Your task to perform on an android device: change the clock display to show seconds Image 0: 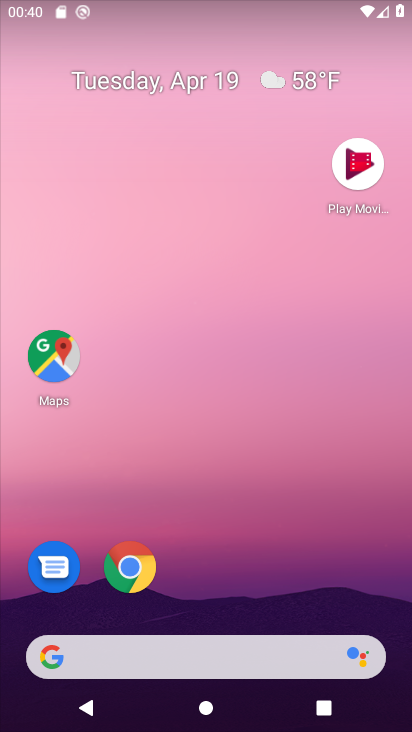
Step 0: drag from (242, 359) to (255, 79)
Your task to perform on an android device: change the clock display to show seconds Image 1: 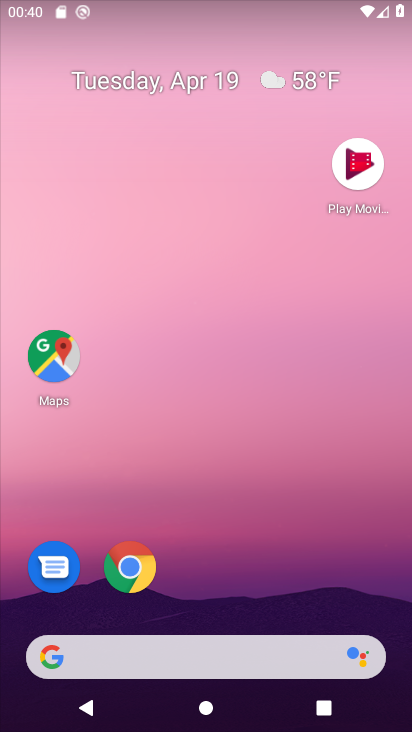
Step 1: drag from (204, 541) to (217, 154)
Your task to perform on an android device: change the clock display to show seconds Image 2: 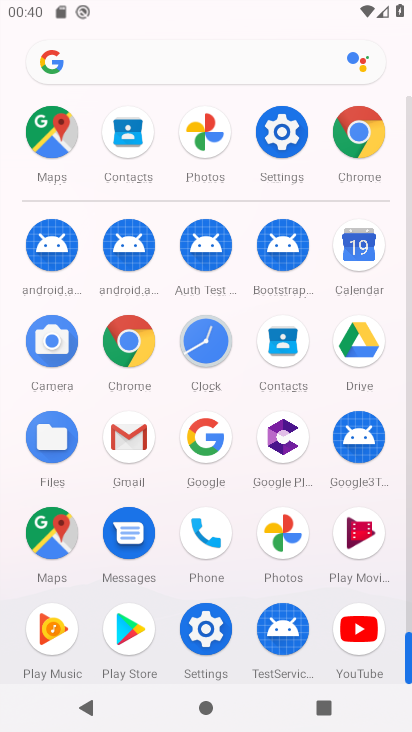
Step 2: click (224, 353)
Your task to perform on an android device: change the clock display to show seconds Image 3: 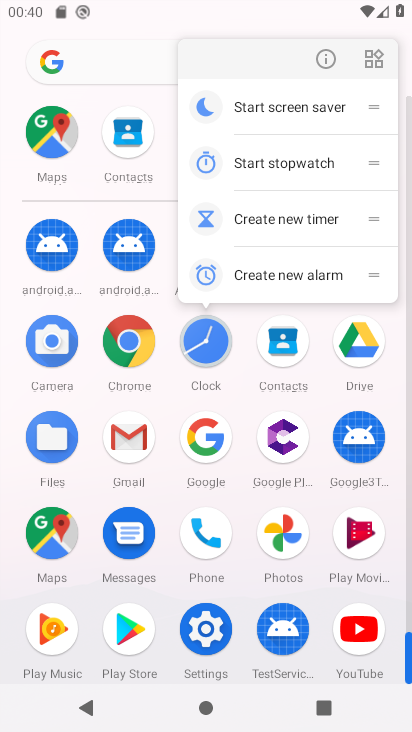
Step 3: click (313, 58)
Your task to perform on an android device: change the clock display to show seconds Image 4: 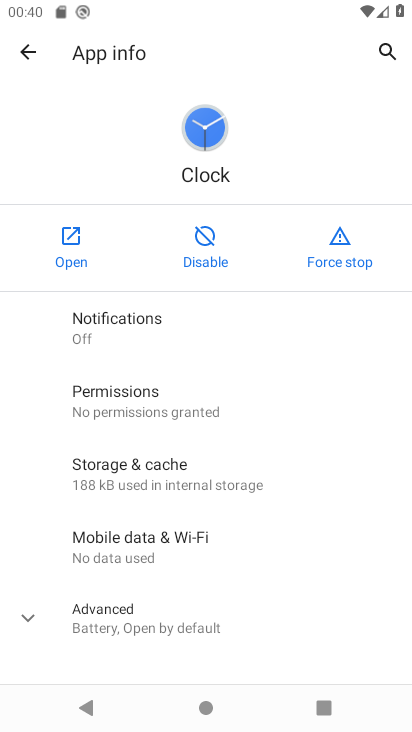
Step 4: click (46, 226)
Your task to perform on an android device: change the clock display to show seconds Image 5: 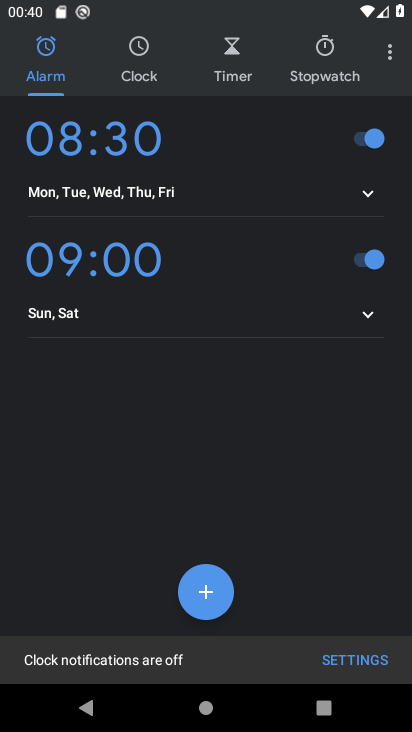
Step 5: click (389, 56)
Your task to perform on an android device: change the clock display to show seconds Image 6: 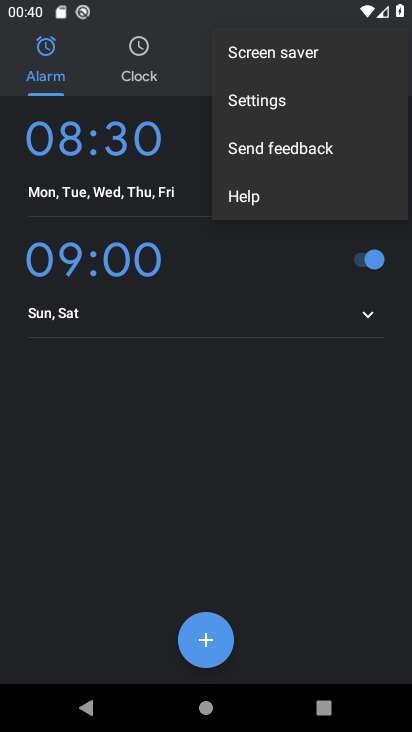
Step 6: click (268, 94)
Your task to perform on an android device: change the clock display to show seconds Image 7: 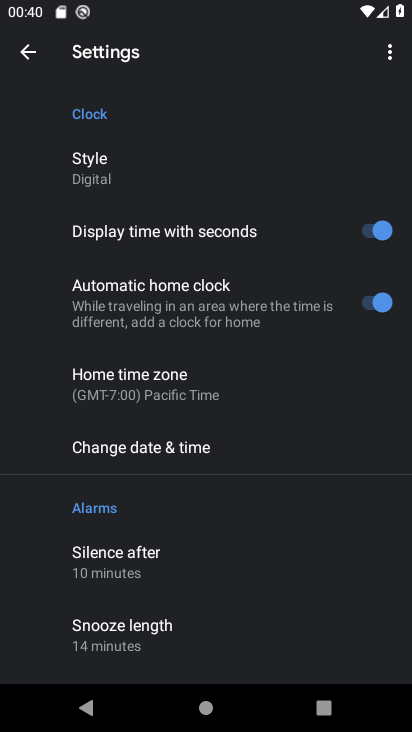
Step 7: click (358, 232)
Your task to perform on an android device: change the clock display to show seconds Image 8: 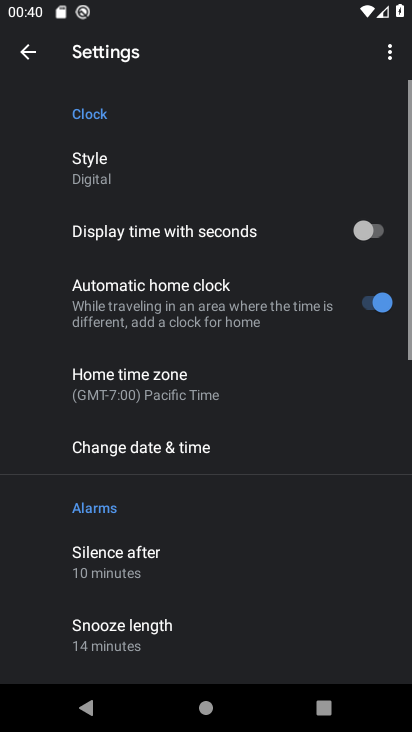
Step 8: task complete